Your task to perform on an android device: turn off sleep mode Image 0: 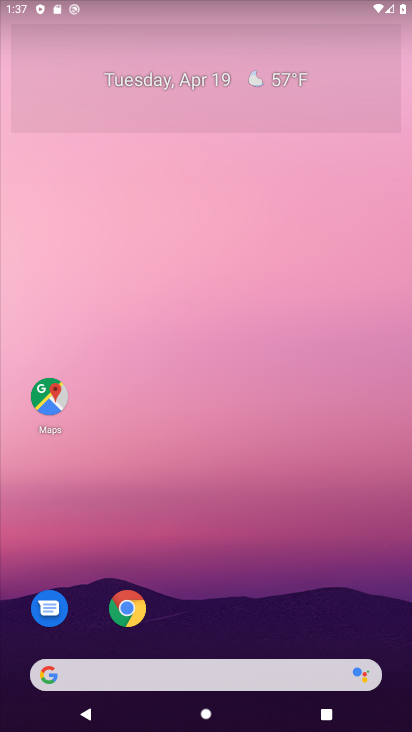
Step 0: drag from (202, 607) to (188, 269)
Your task to perform on an android device: turn off sleep mode Image 1: 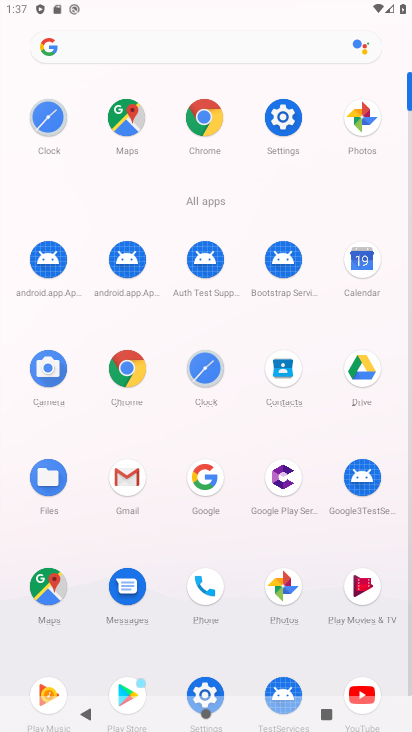
Step 1: click (296, 118)
Your task to perform on an android device: turn off sleep mode Image 2: 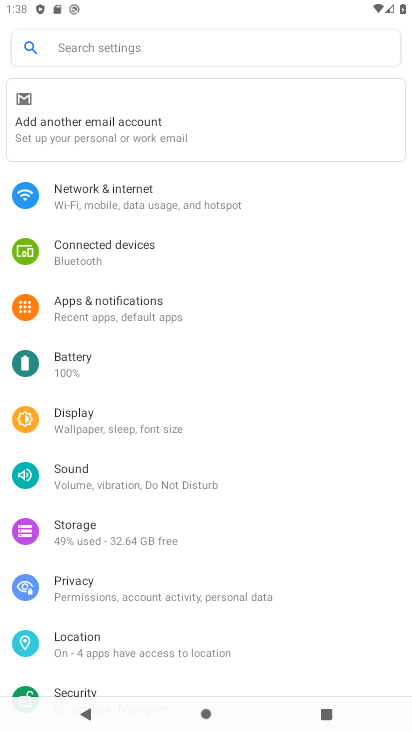
Step 2: click (148, 438)
Your task to perform on an android device: turn off sleep mode Image 3: 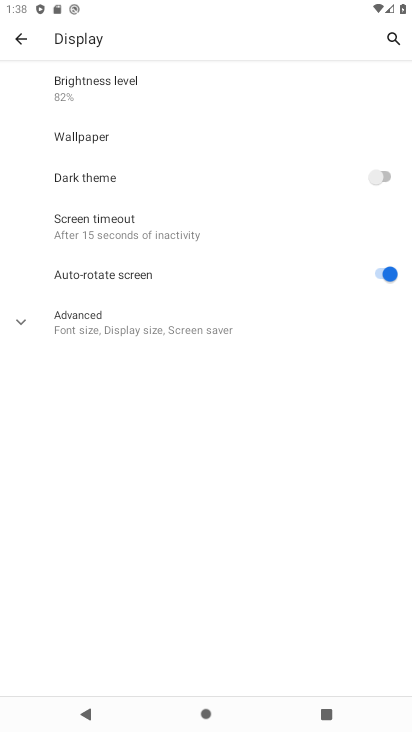
Step 3: click (98, 231)
Your task to perform on an android device: turn off sleep mode Image 4: 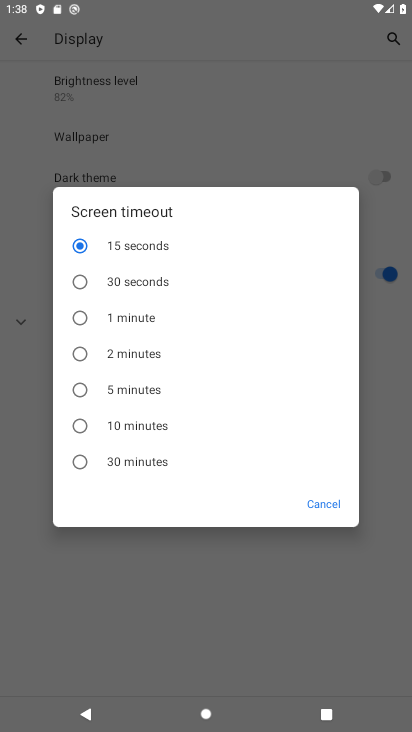
Step 4: task complete